Your task to perform on an android device: What's the weather going to be this weekend? Image 0: 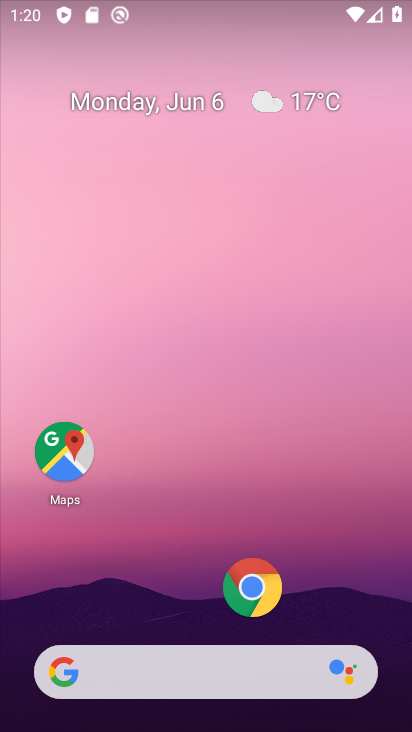
Step 0: click (280, 101)
Your task to perform on an android device: What's the weather going to be this weekend? Image 1: 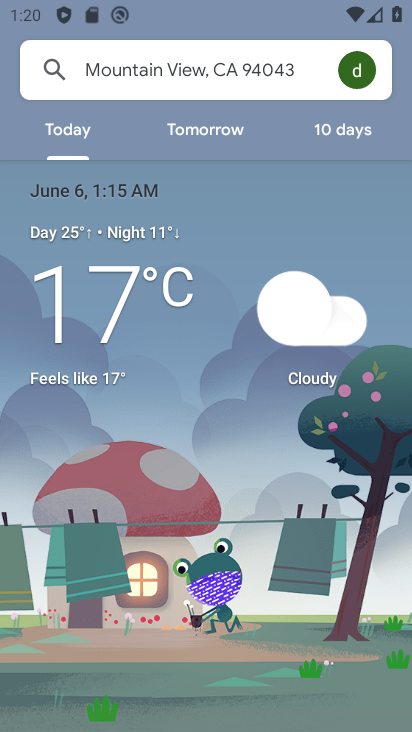
Step 1: click (335, 144)
Your task to perform on an android device: What's the weather going to be this weekend? Image 2: 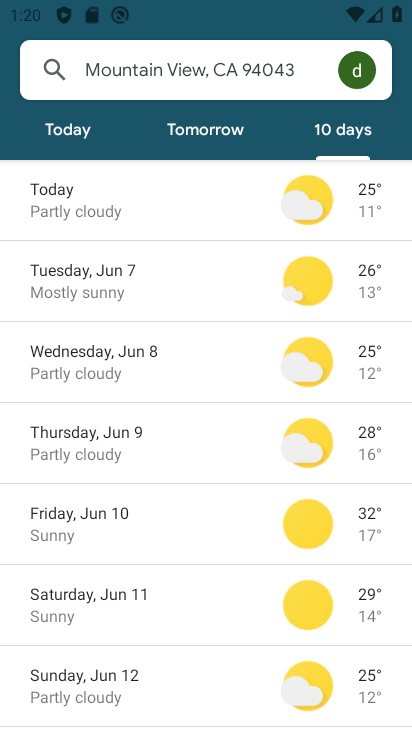
Step 2: task complete